Your task to perform on an android device: Turn off the flashlight Image 0: 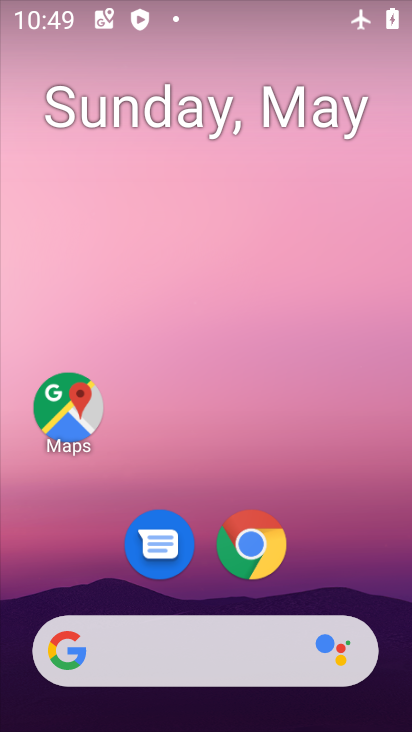
Step 0: drag from (328, 513) to (307, 135)
Your task to perform on an android device: Turn off the flashlight Image 1: 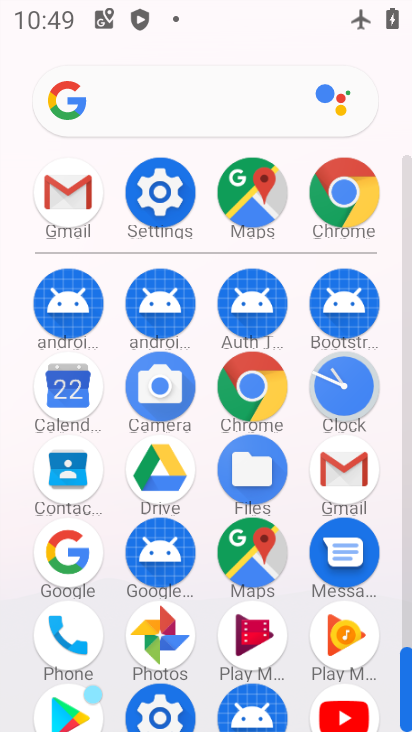
Step 1: click (163, 200)
Your task to perform on an android device: Turn off the flashlight Image 2: 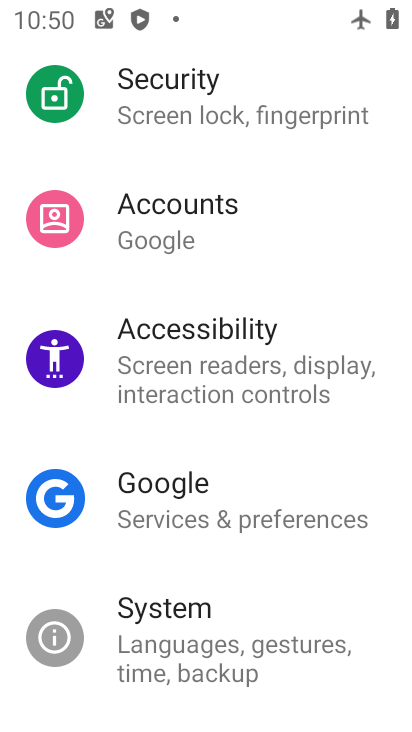
Step 2: task complete